Your task to perform on an android device: Go to accessibility settings Image 0: 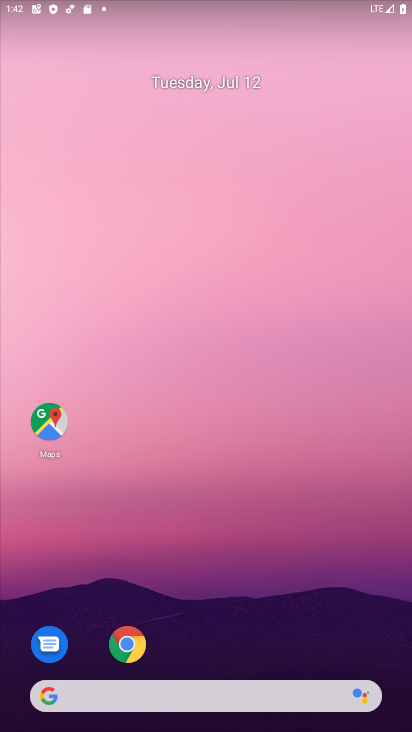
Step 0: drag from (214, 677) to (207, 126)
Your task to perform on an android device: Go to accessibility settings Image 1: 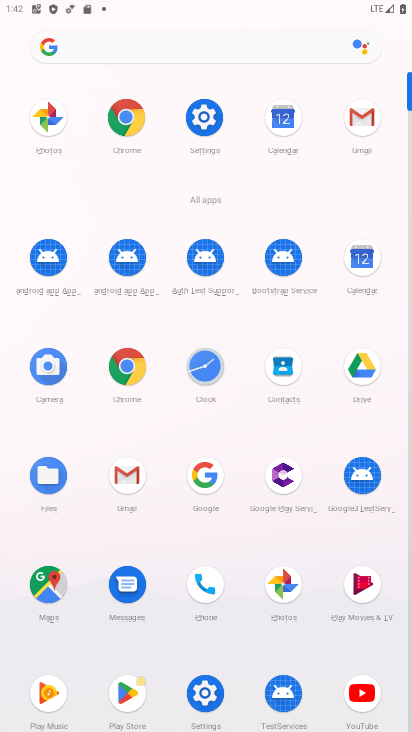
Step 1: click (189, 129)
Your task to perform on an android device: Go to accessibility settings Image 2: 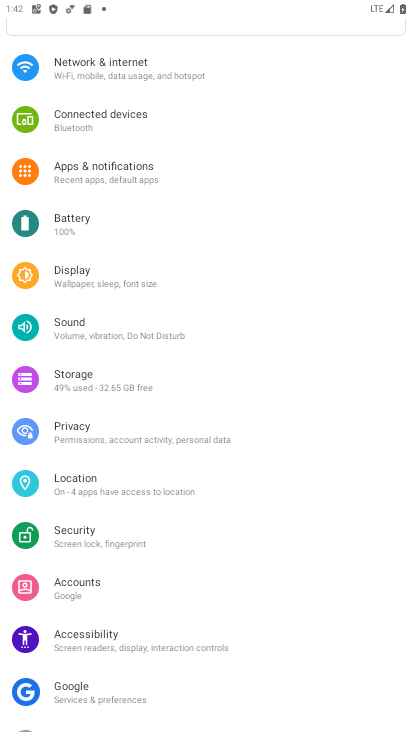
Step 2: click (93, 642)
Your task to perform on an android device: Go to accessibility settings Image 3: 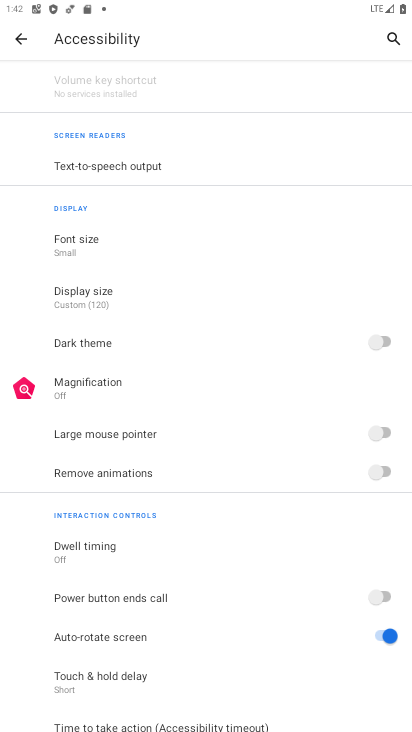
Step 3: task complete